Your task to perform on an android device: What's the weather going to be this weekend? Image 0: 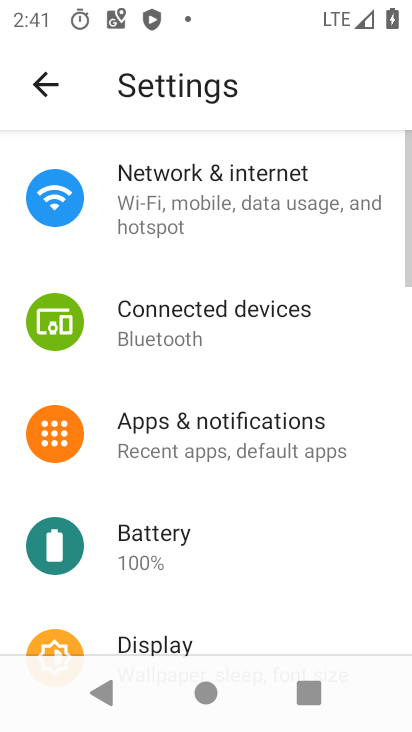
Step 0: press home button
Your task to perform on an android device: What's the weather going to be this weekend? Image 1: 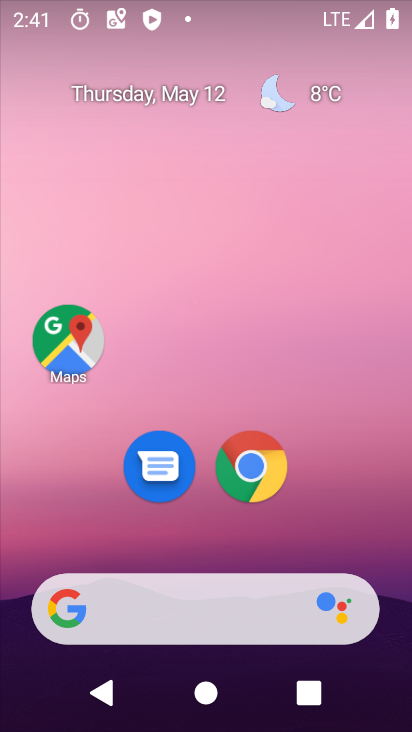
Step 1: click (248, 481)
Your task to perform on an android device: What's the weather going to be this weekend? Image 2: 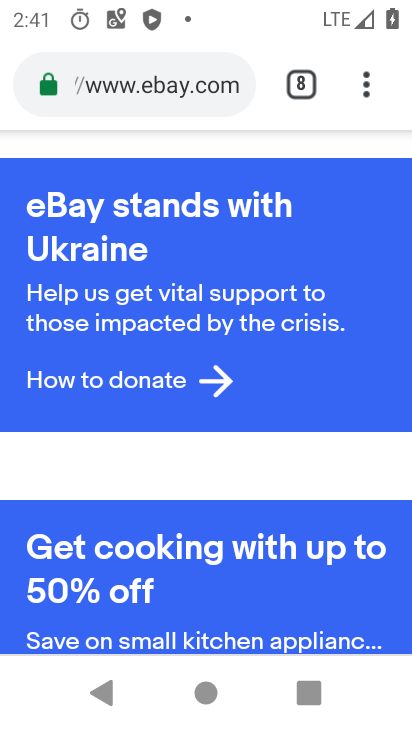
Step 2: click (309, 92)
Your task to perform on an android device: What's the weather going to be this weekend? Image 3: 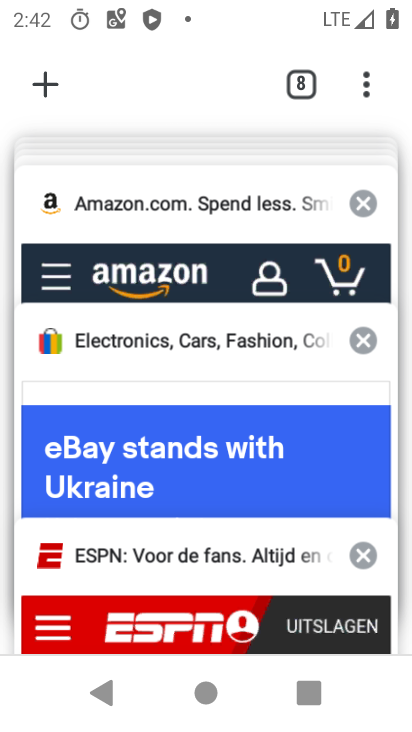
Step 3: click (46, 83)
Your task to perform on an android device: What's the weather going to be this weekend? Image 4: 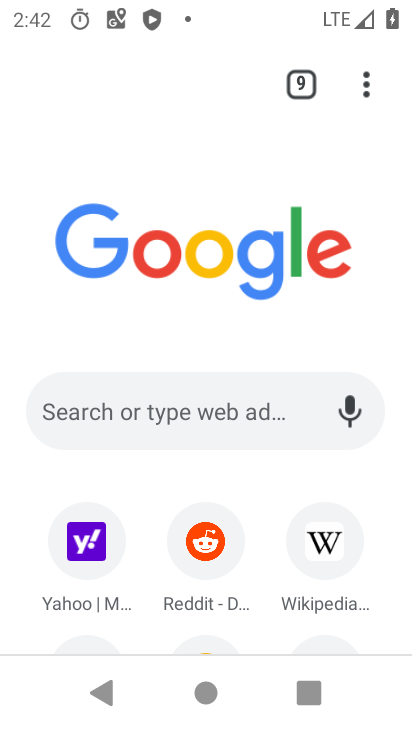
Step 4: click (117, 406)
Your task to perform on an android device: What's the weather going to be this weekend? Image 5: 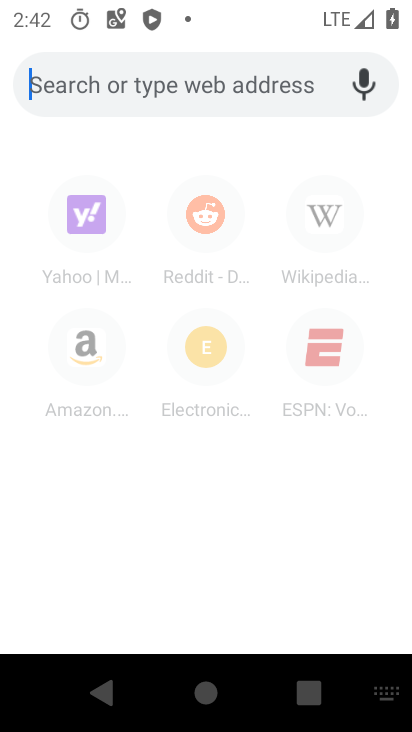
Step 5: type "whats the weather going to be this weekend"
Your task to perform on an android device: What's the weather going to be this weekend? Image 6: 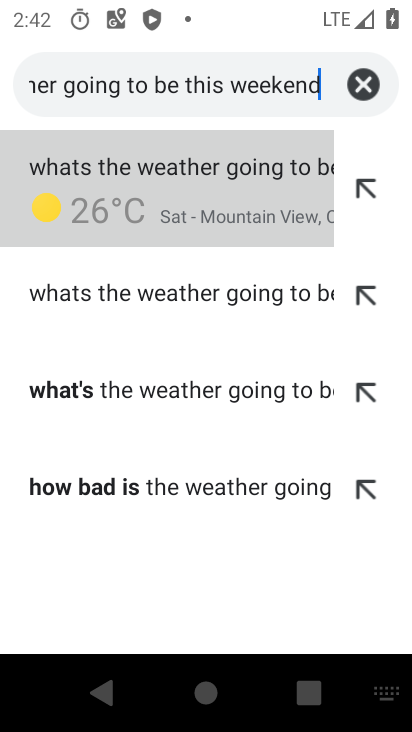
Step 6: click (233, 169)
Your task to perform on an android device: What's the weather going to be this weekend? Image 7: 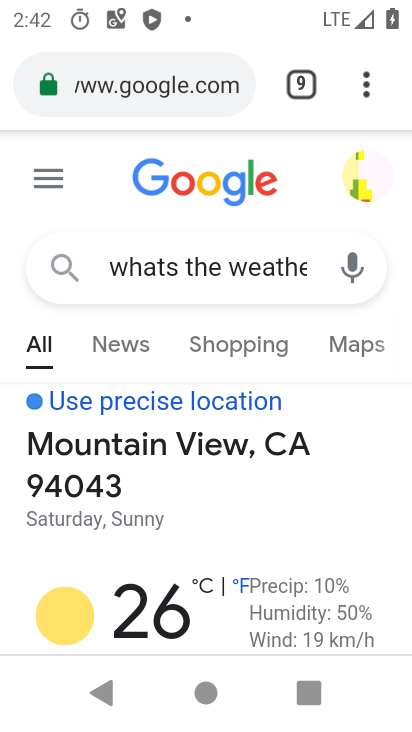
Step 7: drag from (142, 626) to (131, 340)
Your task to perform on an android device: What's the weather going to be this weekend? Image 8: 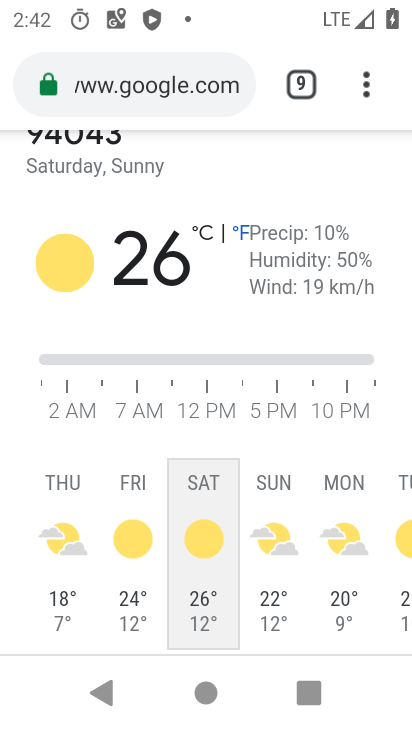
Step 8: click (270, 536)
Your task to perform on an android device: What's the weather going to be this weekend? Image 9: 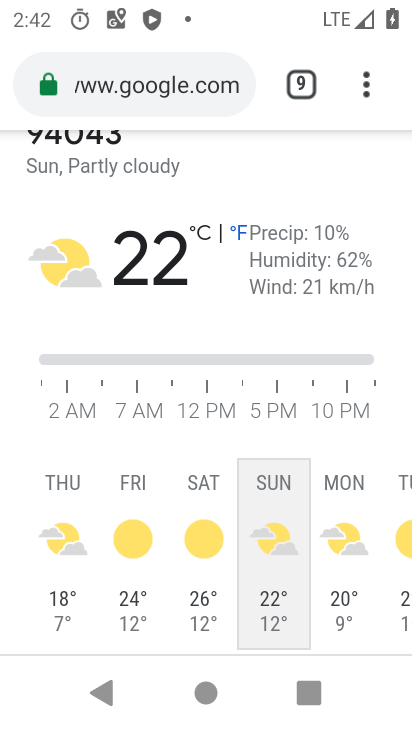
Step 9: task complete